Your task to perform on an android device: Go to notification settings Image 0: 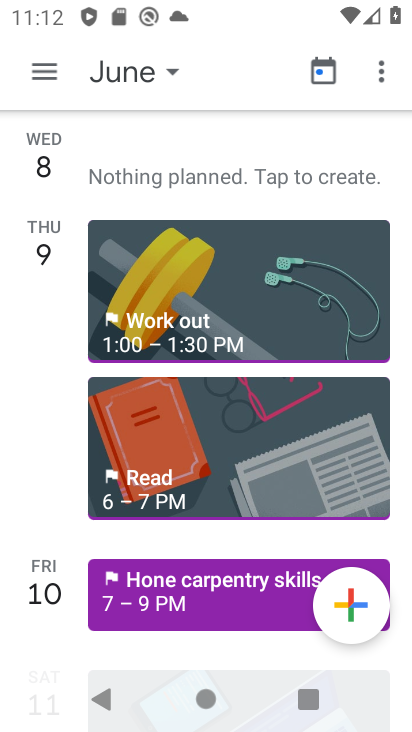
Step 0: press back button
Your task to perform on an android device: Go to notification settings Image 1: 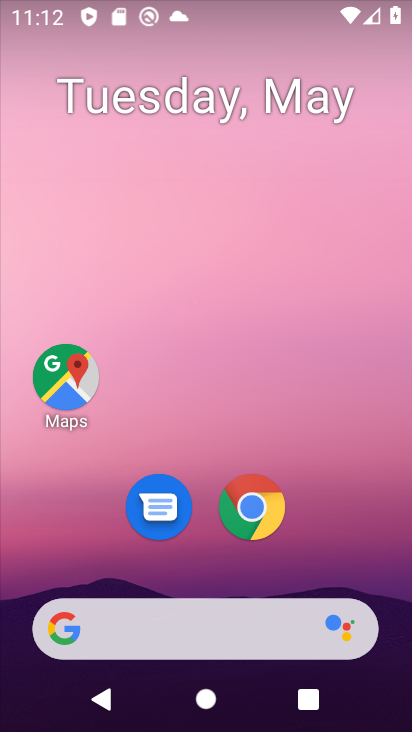
Step 1: drag from (252, 651) to (270, 1)
Your task to perform on an android device: Go to notification settings Image 2: 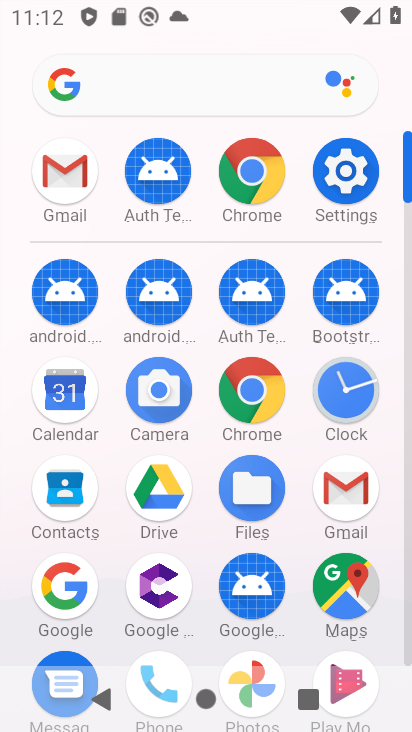
Step 2: drag from (279, 604) to (181, 44)
Your task to perform on an android device: Go to notification settings Image 3: 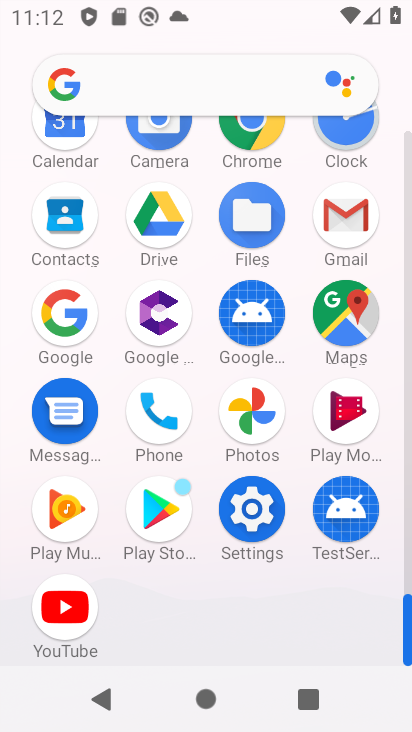
Step 3: click (250, 494)
Your task to perform on an android device: Go to notification settings Image 4: 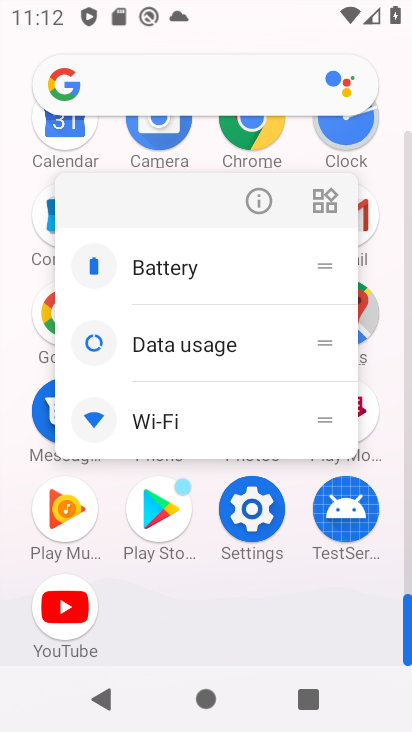
Step 4: click (256, 522)
Your task to perform on an android device: Go to notification settings Image 5: 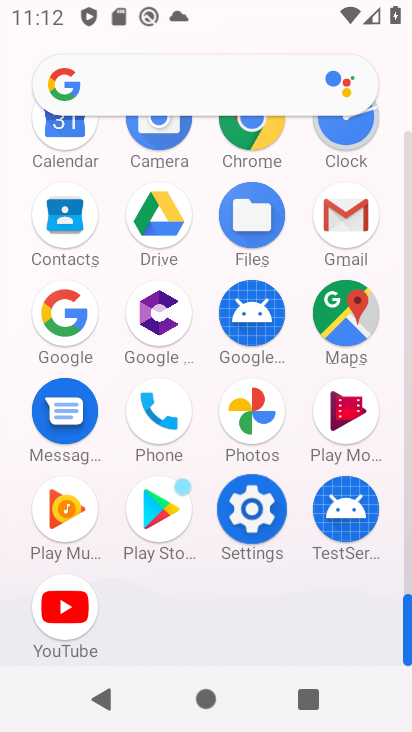
Step 5: click (256, 518)
Your task to perform on an android device: Go to notification settings Image 6: 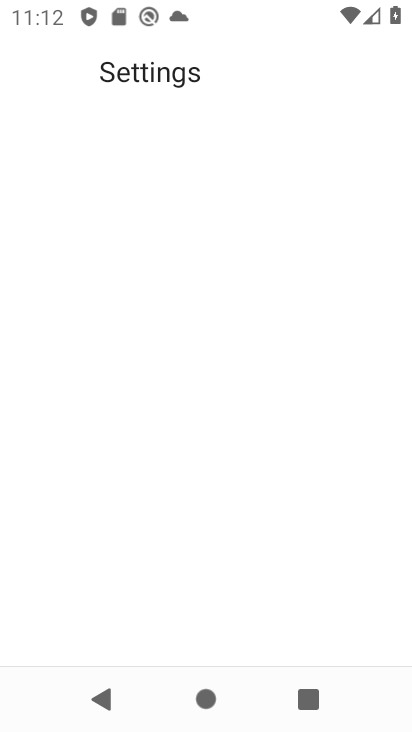
Step 6: click (254, 517)
Your task to perform on an android device: Go to notification settings Image 7: 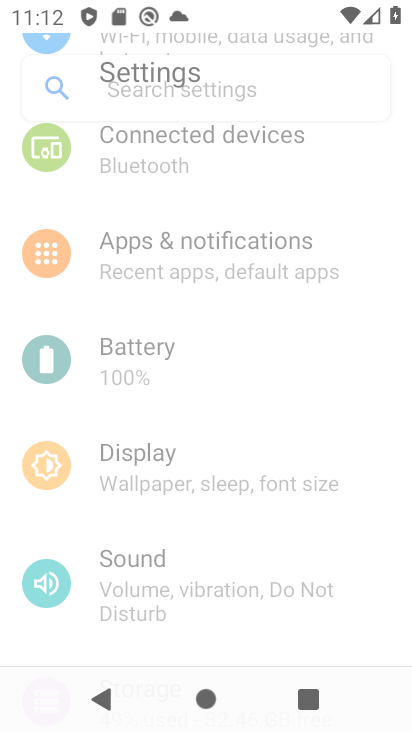
Step 7: click (254, 514)
Your task to perform on an android device: Go to notification settings Image 8: 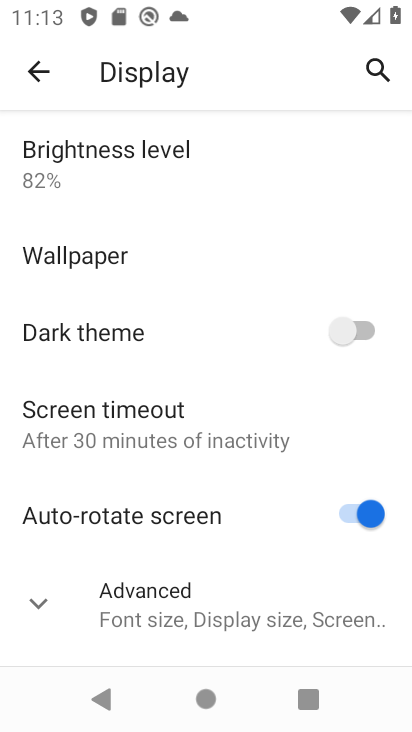
Step 8: click (36, 68)
Your task to perform on an android device: Go to notification settings Image 9: 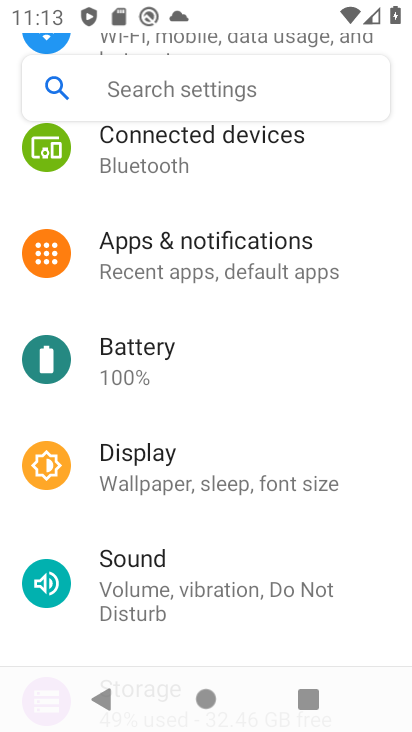
Step 9: click (207, 251)
Your task to perform on an android device: Go to notification settings Image 10: 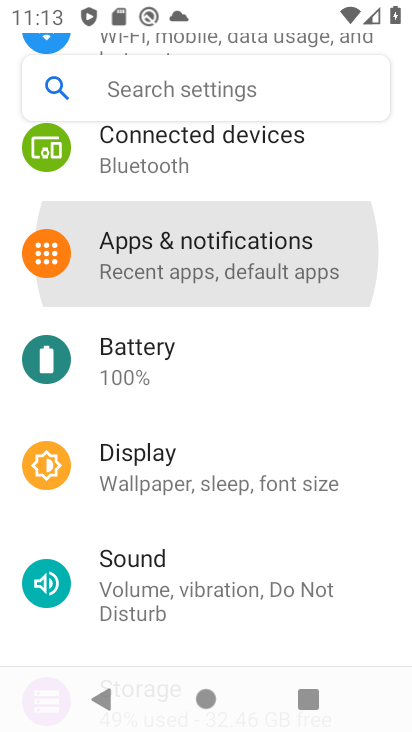
Step 10: click (208, 250)
Your task to perform on an android device: Go to notification settings Image 11: 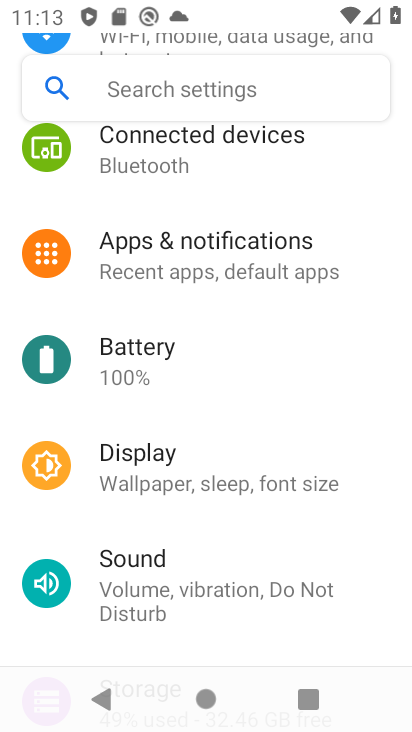
Step 11: click (211, 251)
Your task to perform on an android device: Go to notification settings Image 12: 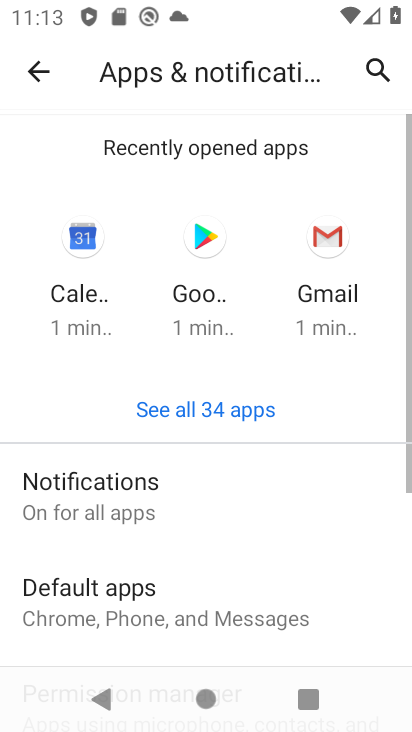
Step 12: task complete